Your task to perform on an android device: Go to notification settings Image 0: 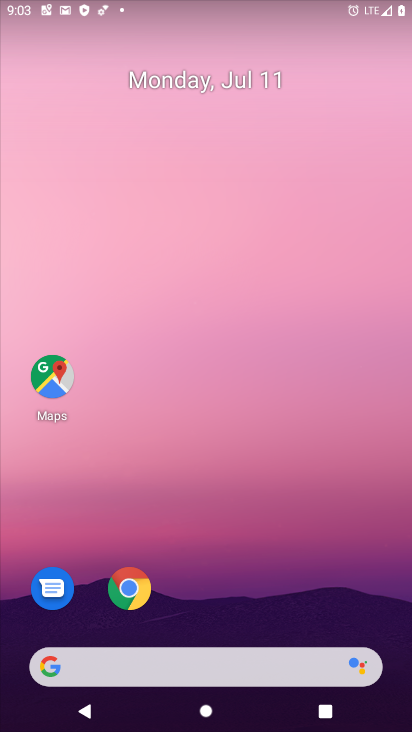
Step 0: drag from (181, 667) to (359, 80)
Your task to perform on an android device: Go to notification settings Image 1: 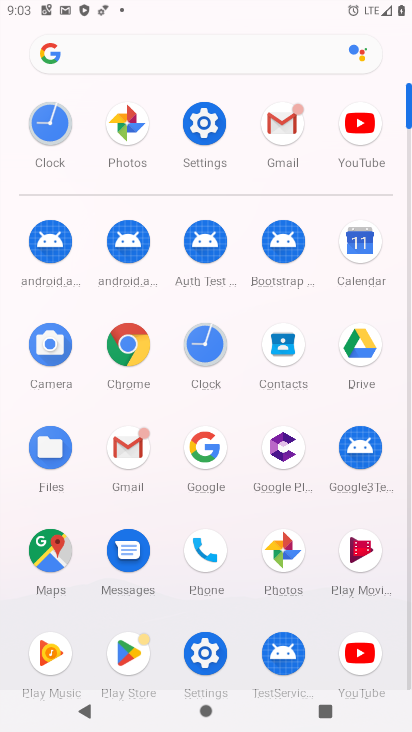
Step 1: click (198, 123)
Your task to perform on an android device: Go to notification settings Image 2: 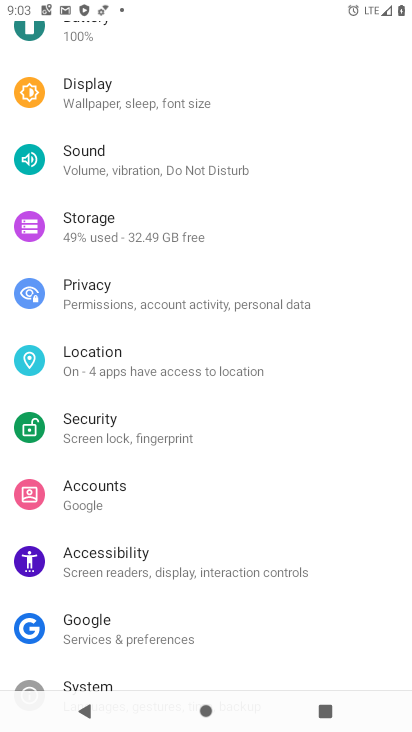
Step 2: drag from (279, 98) to (200, 533)
Your task to perform on an android device: Go to notification settings Image 3: 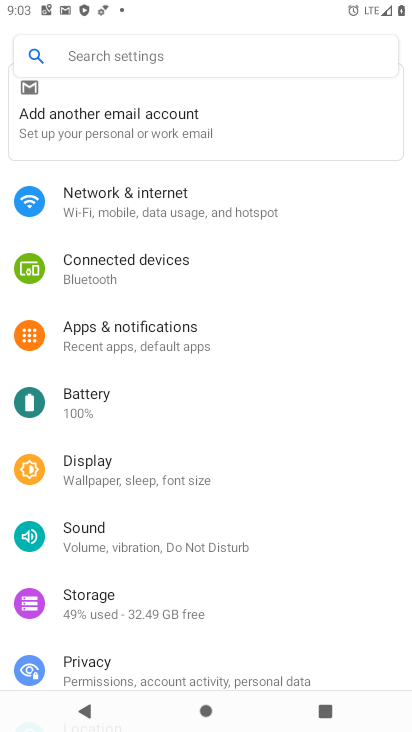
Step 3: click (141, 338)
Your task to perform on an android device: Go to notification settings Image 4: 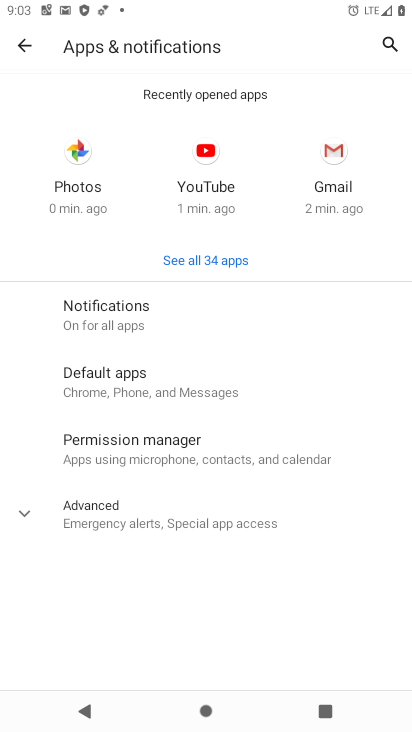
Step 4: click (91, 311)
Your task to perform on an android device: Go to notification settings Image 5: 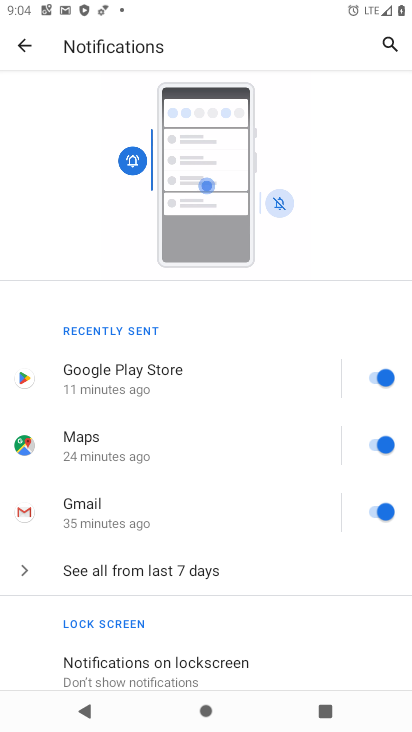
Step 5: task complete